Your task to perform on an android device: Clear the cart on newegg. Image 0: 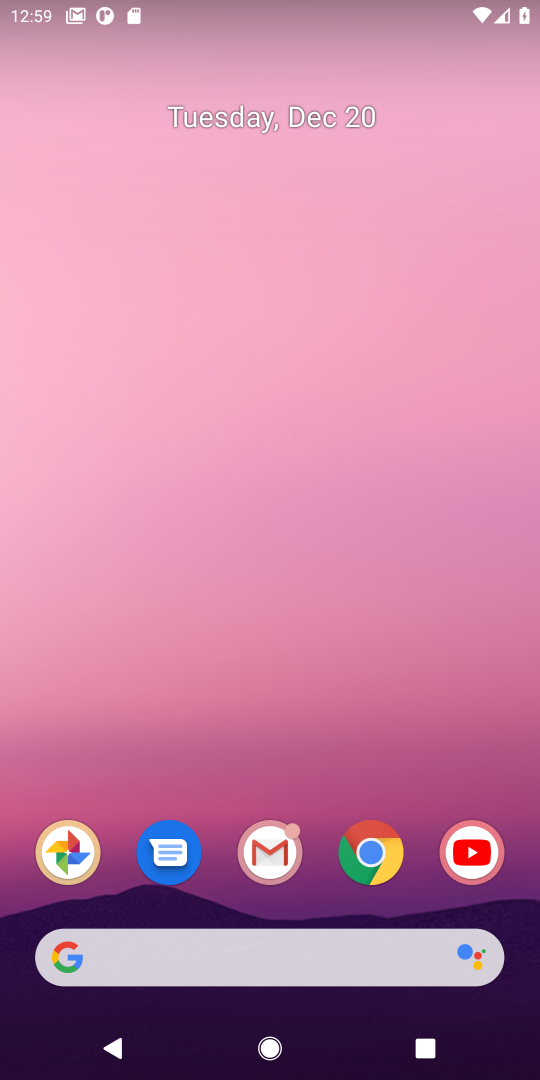
Step 0: click (375, 864)
Your task to perform on an android device: Clear the cart on newegg. Image 1: 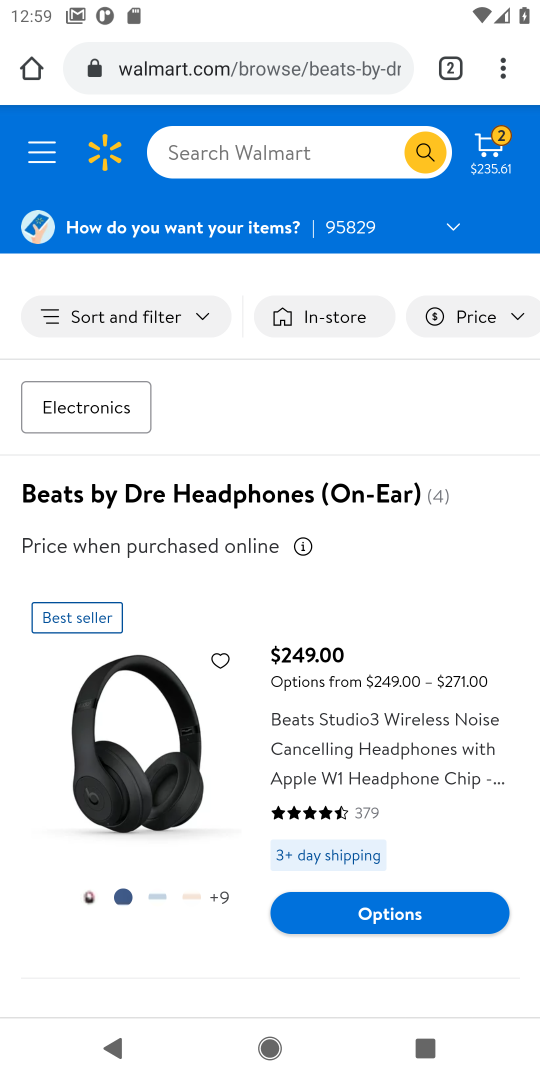
Step 1: click (202, 65)
Your task to perform on an android device: Clear the cart on newegg. Image 2: 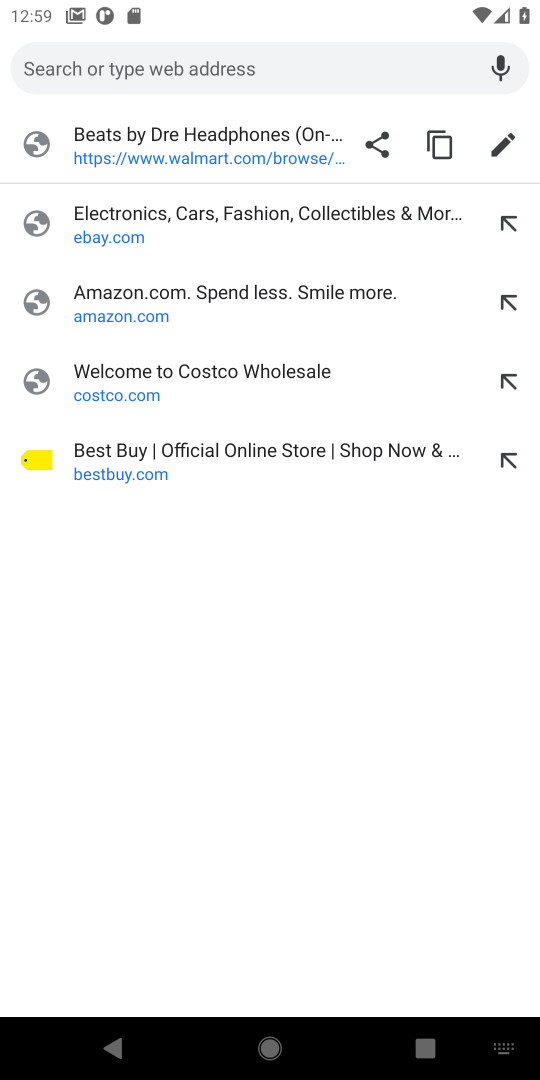
Step 2: type "newegg.com"
Your task to perform on an android device: Clear the cart on newegg. Image 3: 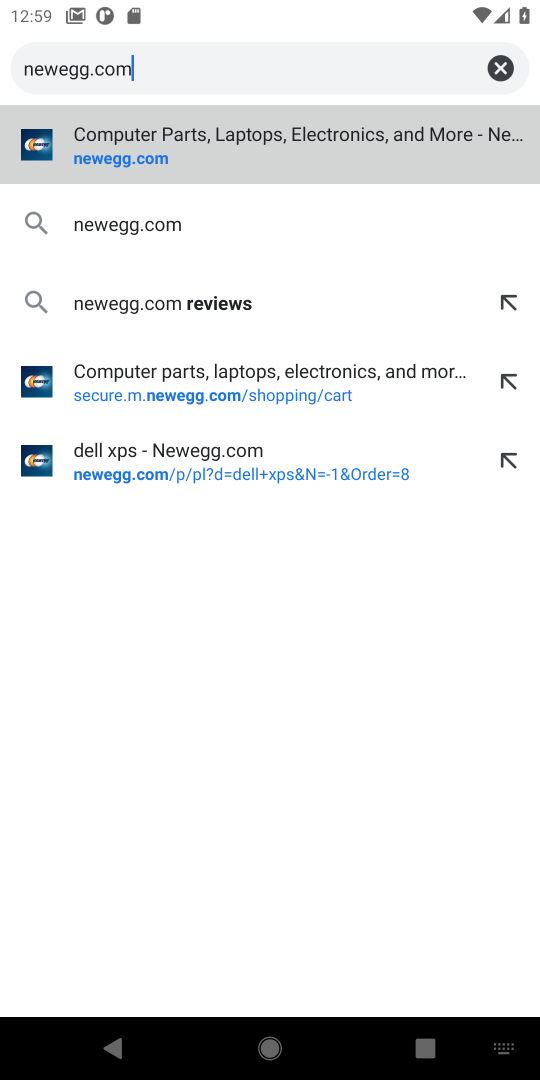
Step 3: click (132, 168)
Your task to perform on an android device: Clear the cart on newegg. Image 4: 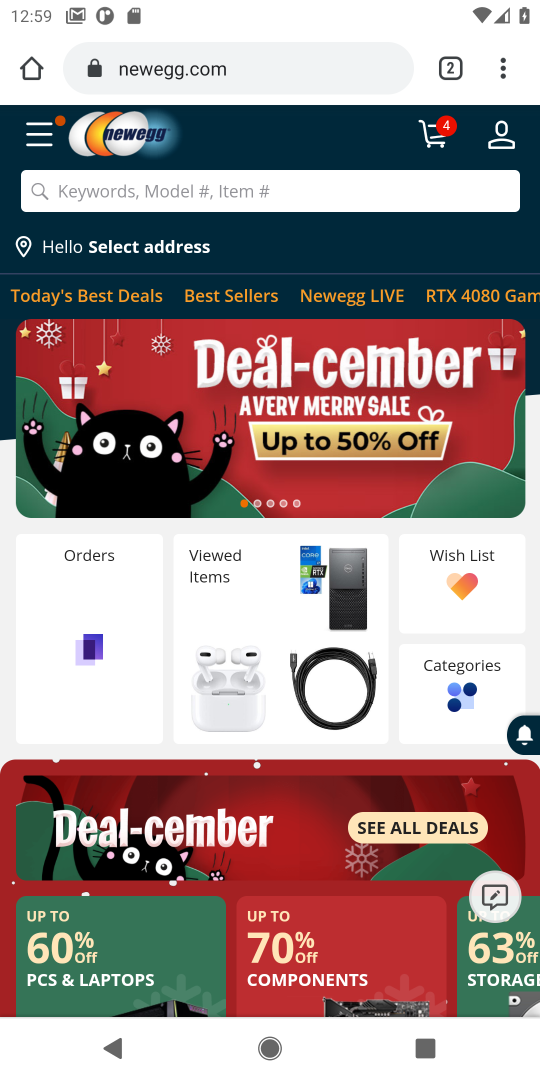
Step 4: click (434, 147)
Your task to perform on an android device: Clear the cart on newegg. Image 5: 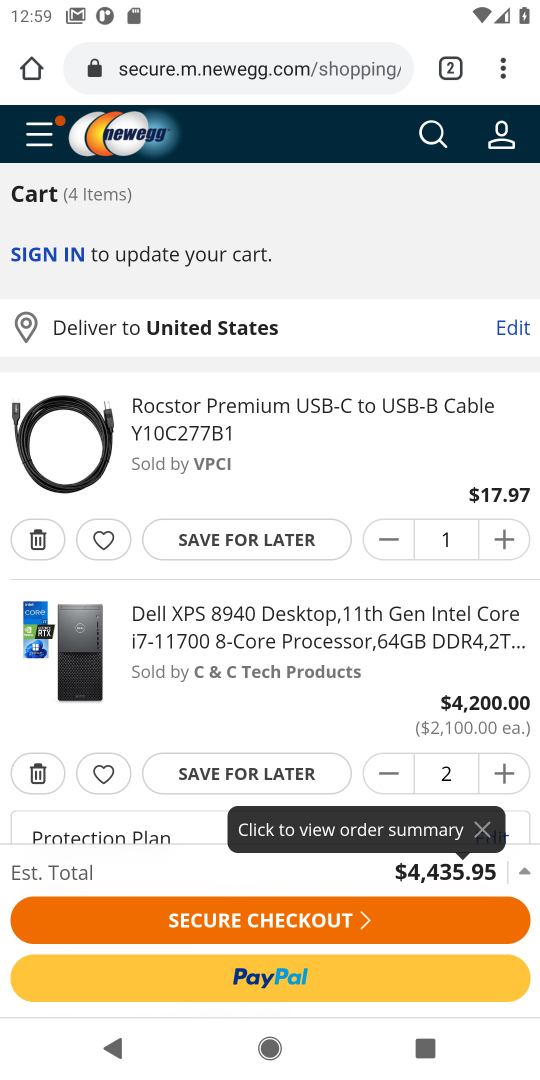
Step 5: click (36, 542)
Your task to perform on an android device: Clear the cart on newegg. Image 6: 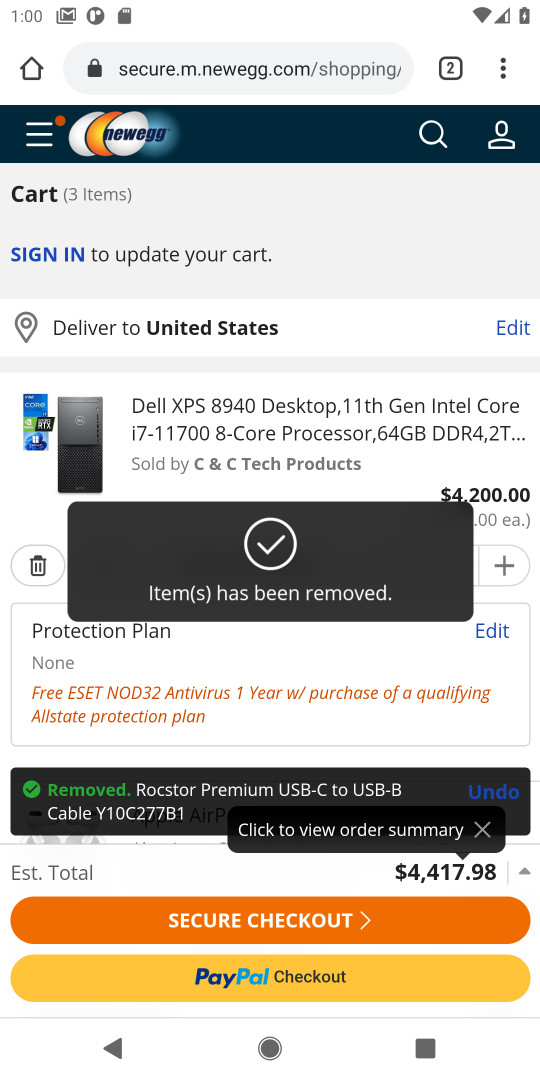
Step 6: click (48, 571)
Your task to perform on an android device: Clear the cart on newegg. Image 7: 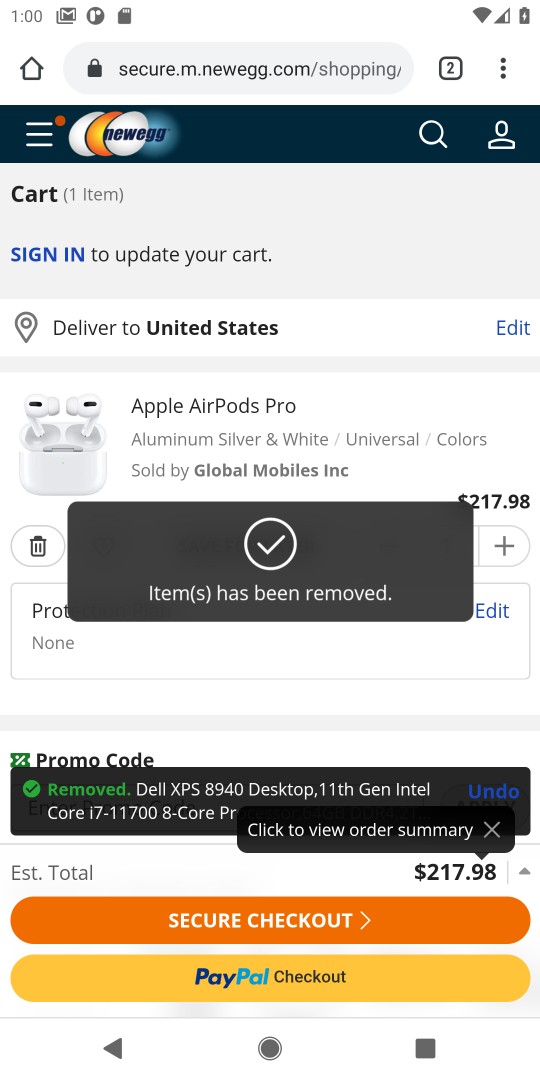
Step 7: click (44, 542)
Your task to perform on an android device: Clear the cart on newegg. Image 8: 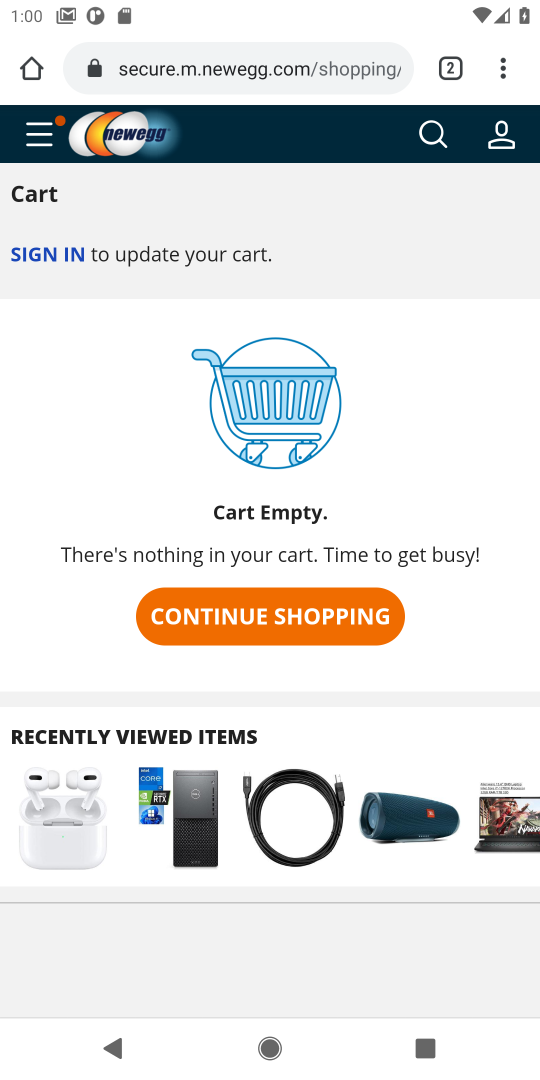
Step 8: task complete